Your task to perform on an android device: toggle translation in the chrome app Image 0: 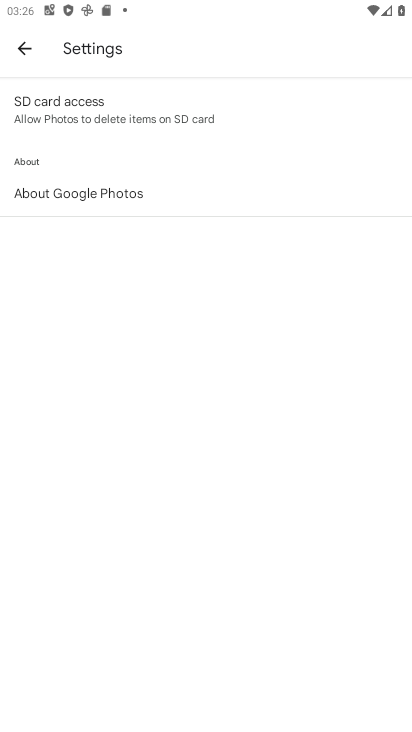
Step 0: press home button
Your task to perform on an android device: toggle translation in the chrome app Image 1: 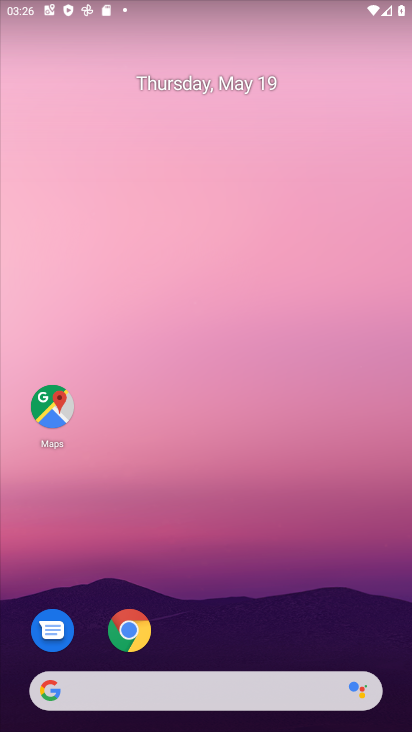
Step 1: click (129, 630)
Your task to perform on an android device: toggle translation in the chrome app Image 2: 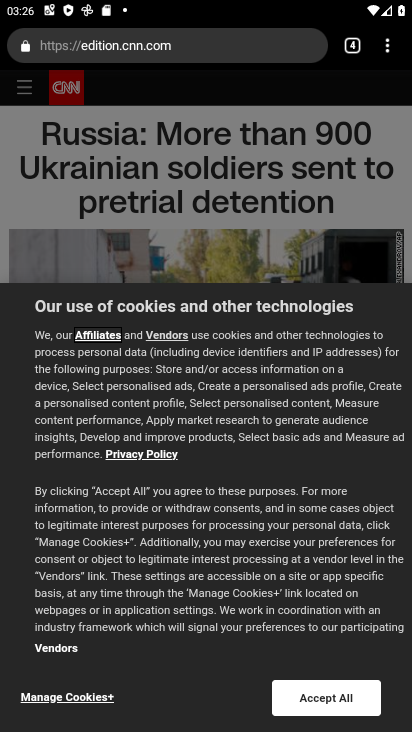
Step 2: click (386, 51)
Your task to perform on an android device: toggle translation in the chrome app Image 3: 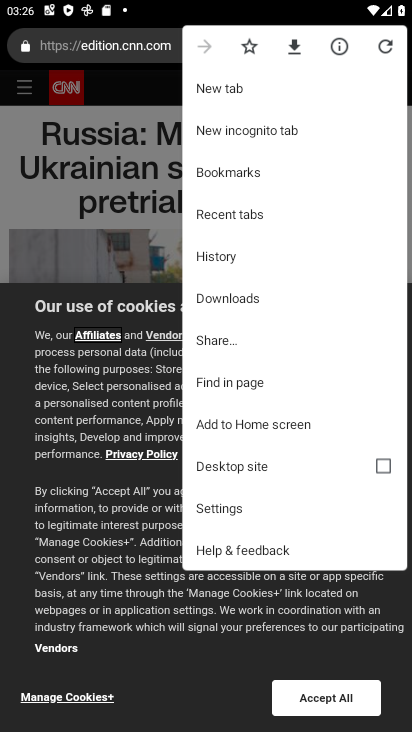
Step 3: click (229, 508)
Your task to perform on an android device: toggle translation in the chrome app Image 4: 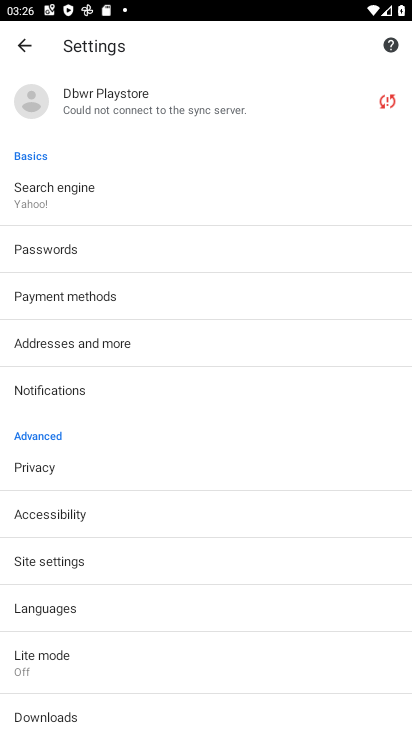
Step 4: click (56, 606)
Your task to perform on an android device: toggle translation in the chrome app Image 5: 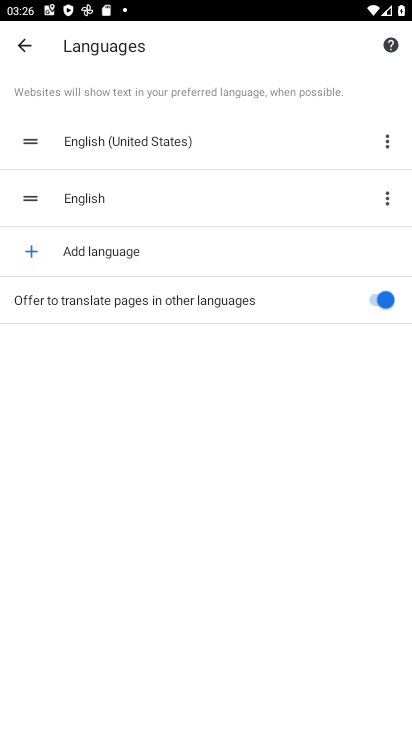
Step 5: click (370, 299)
Your task to perform on an android device: toggle translation in the chrome app Image 6: 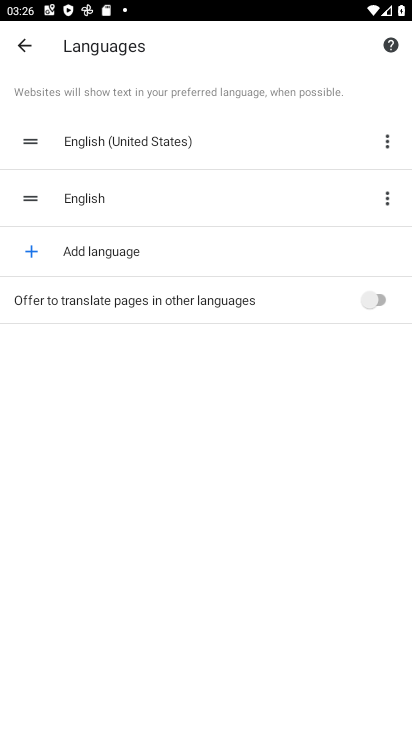
Step 6: task complete